Your task to perform on an android device: Open Youtube and go to the subscriptions tab Image 0: 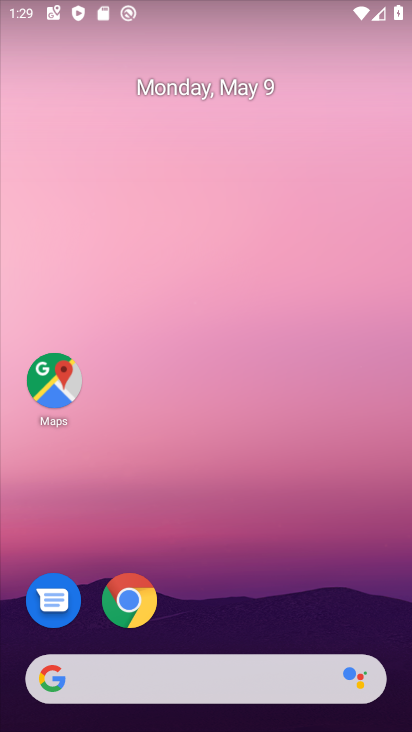
Step 0: drag from (209, 644) to (194, 326)
Your task to perform on an android device: Open Youtube and go to the subscriptions tab Image 1: 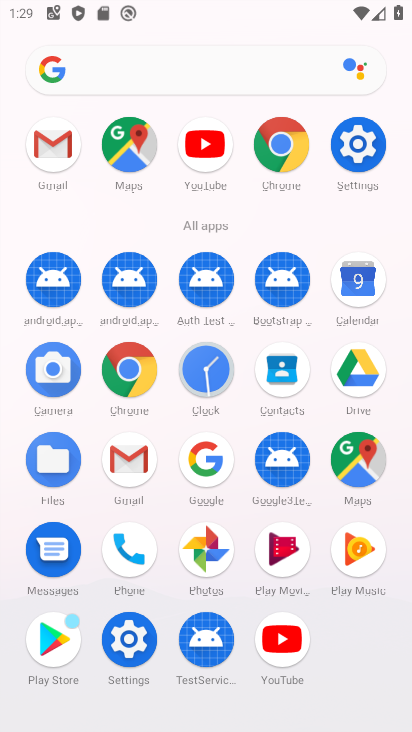
Step 1: click (286, 647)
Your task to perform on an android device: Open Youtube and go to the subscriptions tab Image 2: 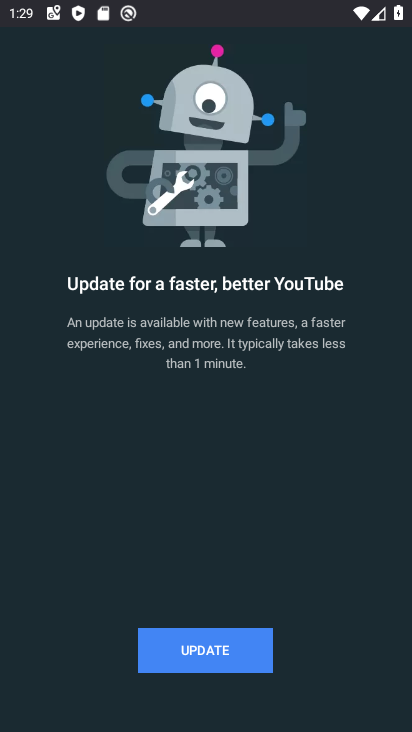
Step 2: click (254, 647)
Your task to perform on an android device: Open Youtube and go to the subscriptions tab Image 3: 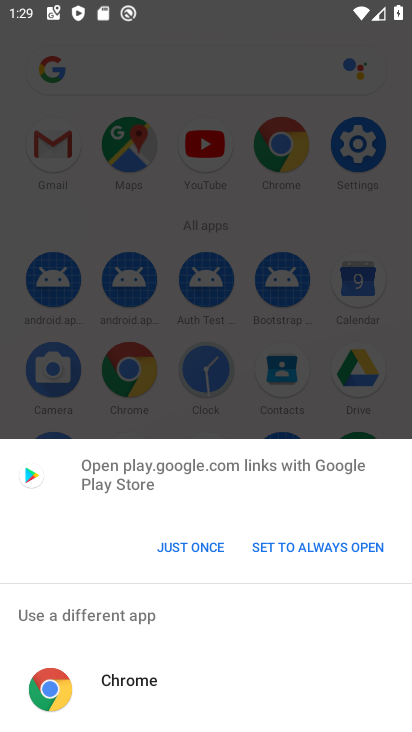
Step 3: click (192, 561)
Your task to perform on an android device: Open Youtube and go to the subscriptions tab Image 4: 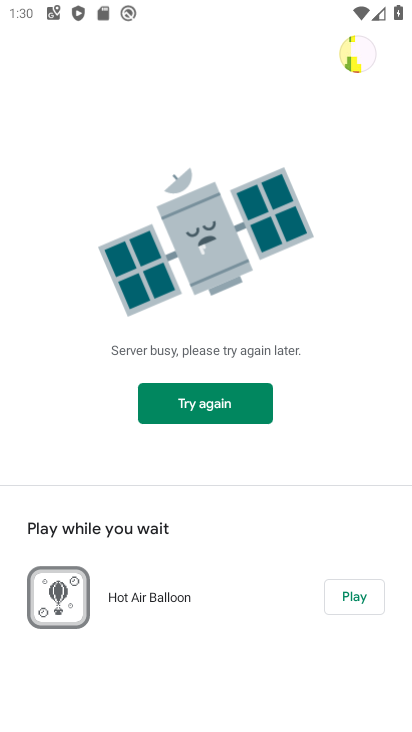
Step 4: task complete